Your task to perform on an android device: What's the weather? Image 0: 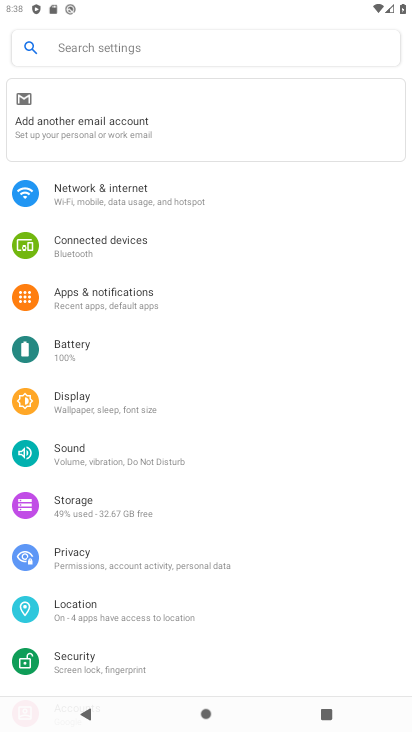
Step 0: press home button
Your task to perform on an android device: What's the weather? Image 1: 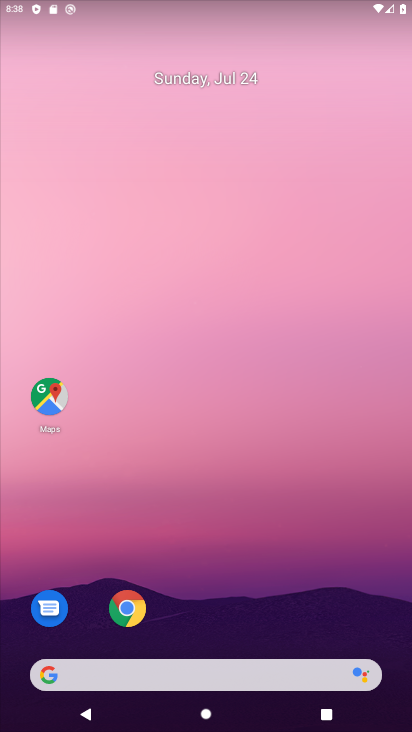
Step 1: click (196, 673)
Your task to perform on an android device: What's the weather? Image 2: 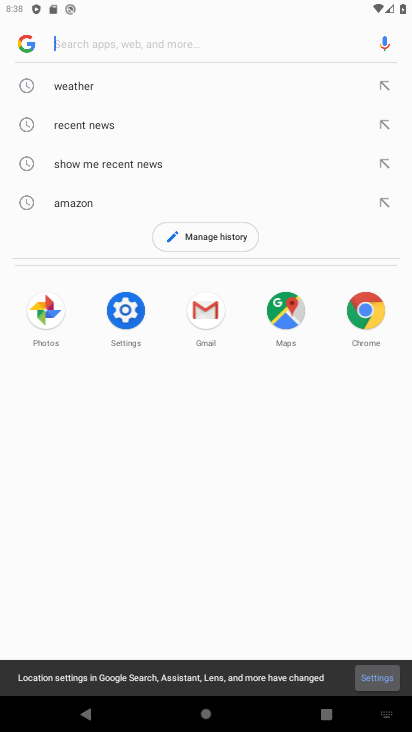
Step 2: click (91, 81)
Your task to perform on an android device: What's the weather? Image 3: 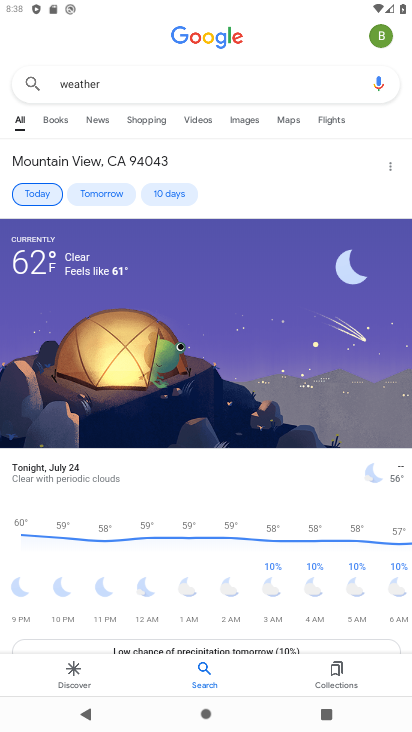
Step 3: task complete